Your task to perform on an android device: toggle airplane mode Image 0: 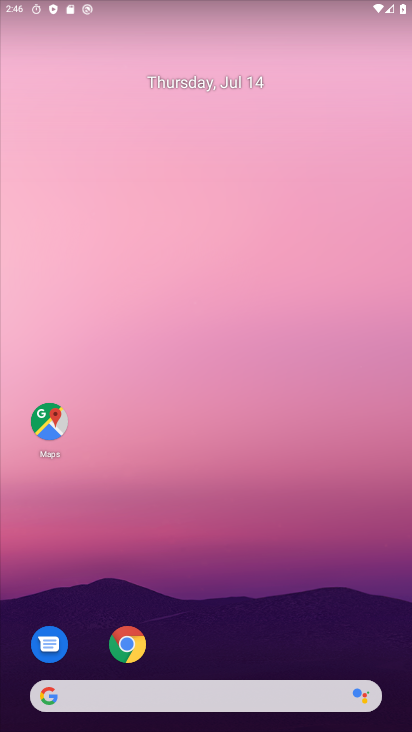
Step 0: drag from (64, 611) to (175, 76)
Your task to perform on an android device: toggle airplane mode Image 1: 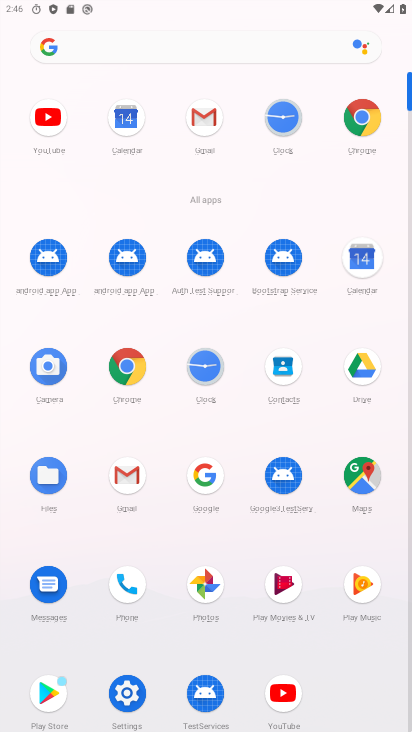
Step 1: click (125, 701)
Your task to perform on an android device: toggle airplane mode Image 2: 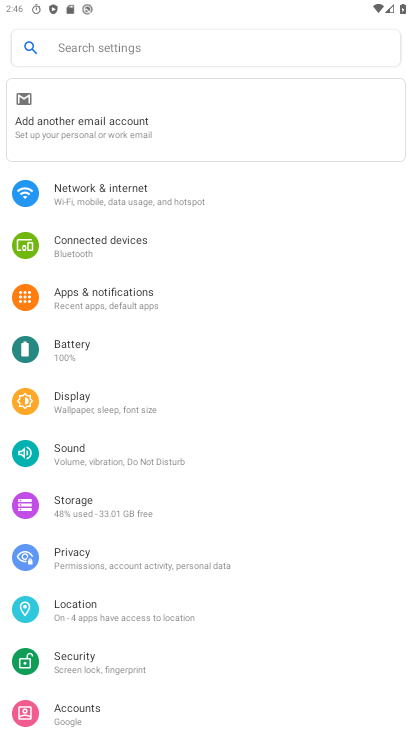
Step 2: click (72, 204)
Your task to perform on an android device: toggle airplane mode Image 3: 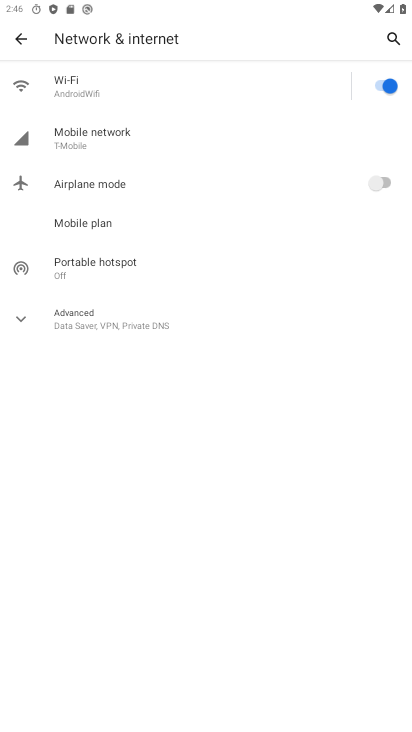
Step 3: click (381, 173)
Your task to perform on an android device: toggle airplane mode Image 4: 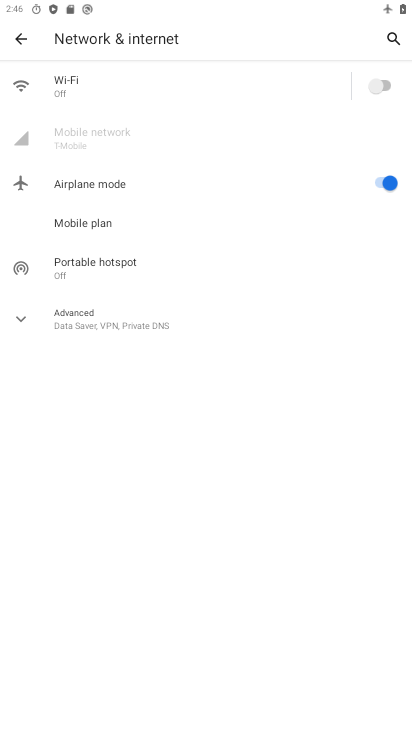
Step 4: task complete